Your task to perform on an android device: Search for vegetarian restaurants on Maps Image 0: 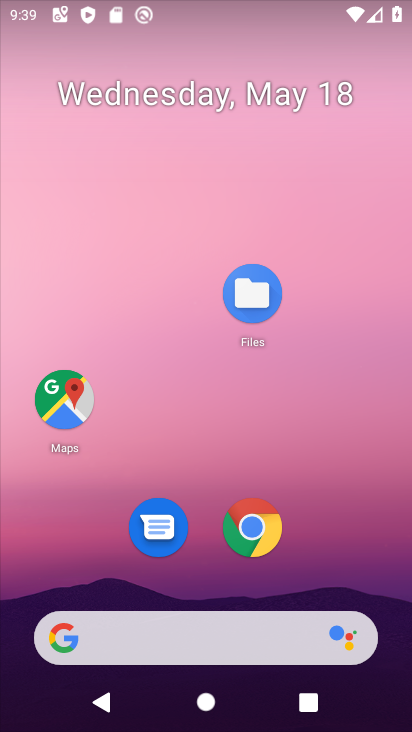
Step 0: click (50, 393)
Your task to perform on an android device: Search for vegetarian restaurants on Maps Image 1: 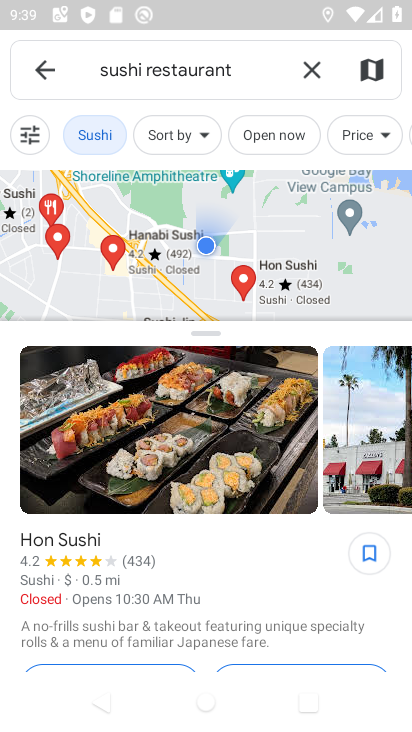
Step 1: click (312, 69)
Your task to perform on an android device: Search for vegetarian restaurants on Maps Image 2: 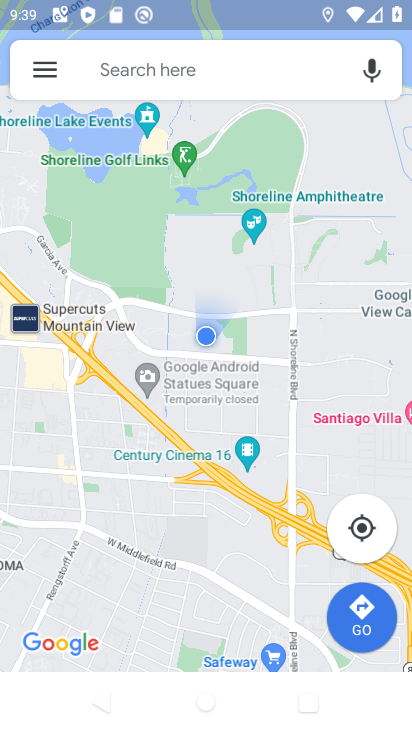
Step 2: click (206, 54)
Your task to perform on an android device: Search for vegetarian restaurants on Maps Image 3: 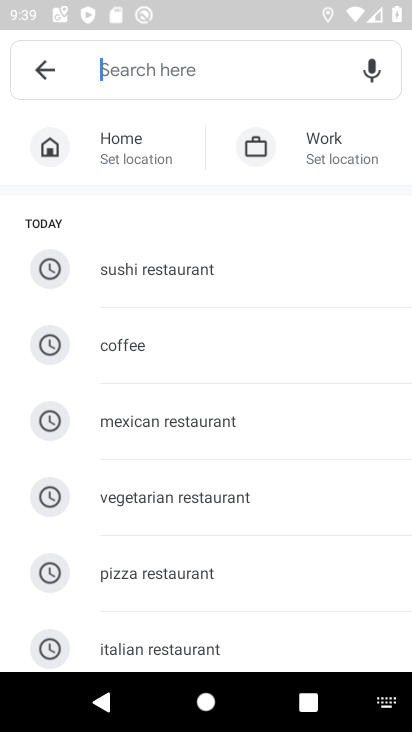
Step 3: click (154, 500)
Your task to perform on an android device: Search for vegetarian restaurants on Maps Image 4: 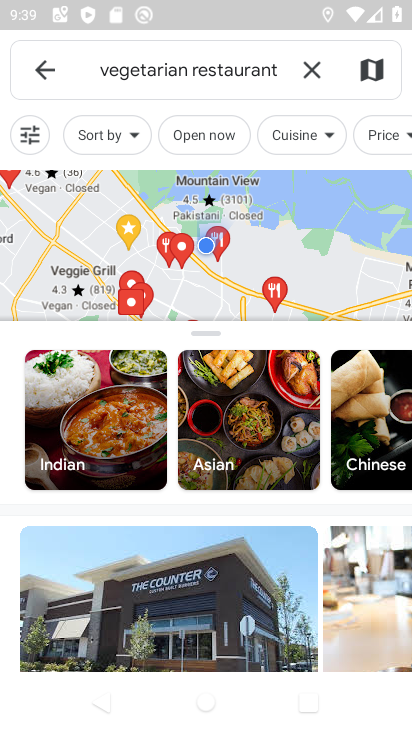
Step 4: task complete